Your task to perform on an android device: Empty the shopping cart on ebay. Add "usb-a to usb-b" to the cart on ebay, then select checkout. Image 0: 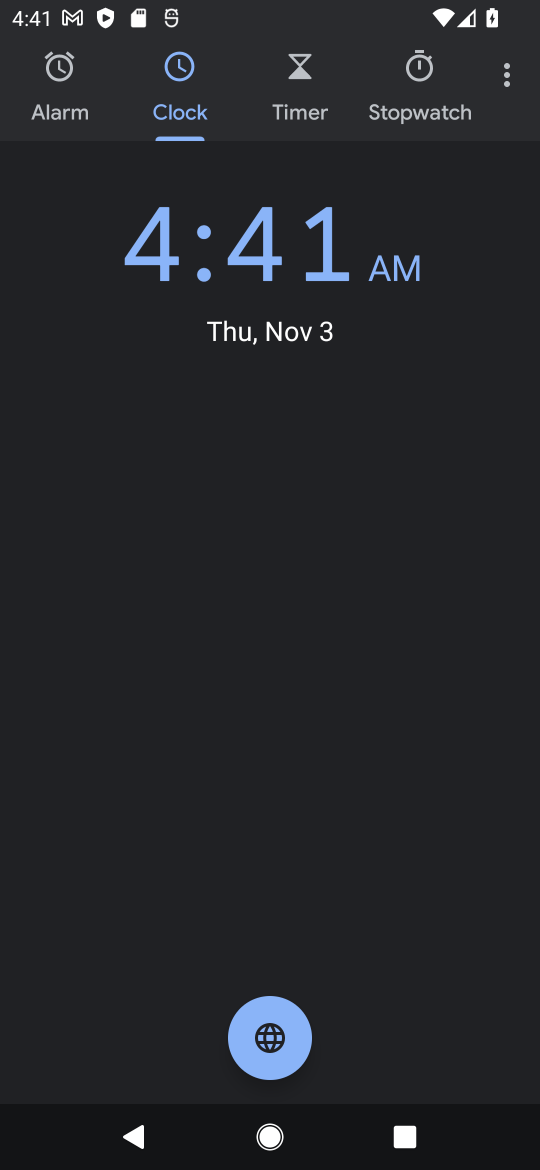
Step 0: press home button
Your task to perform on an android device: Empty the shopping cart on ebay. Add "usb-a to usb-b" to the cart on ebay, then select checkout. Image 1: 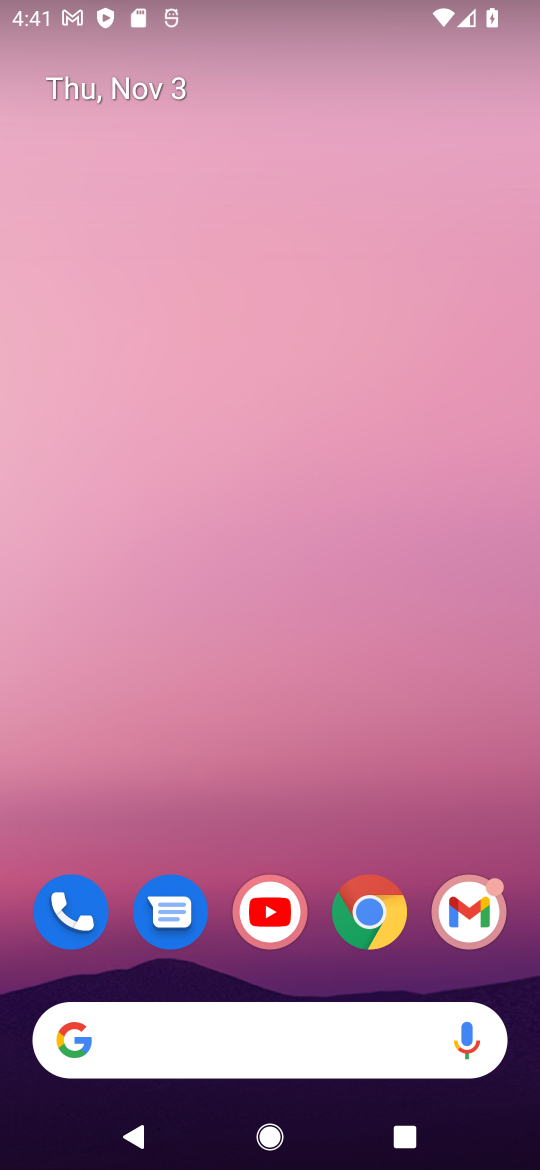
Step 1: click (371, 895)
Your task to perform on an android device: Empty the shopping cart on ebay. Add "usb-a to usb-b" to the cart on ebay, then select checkout. Image 2: 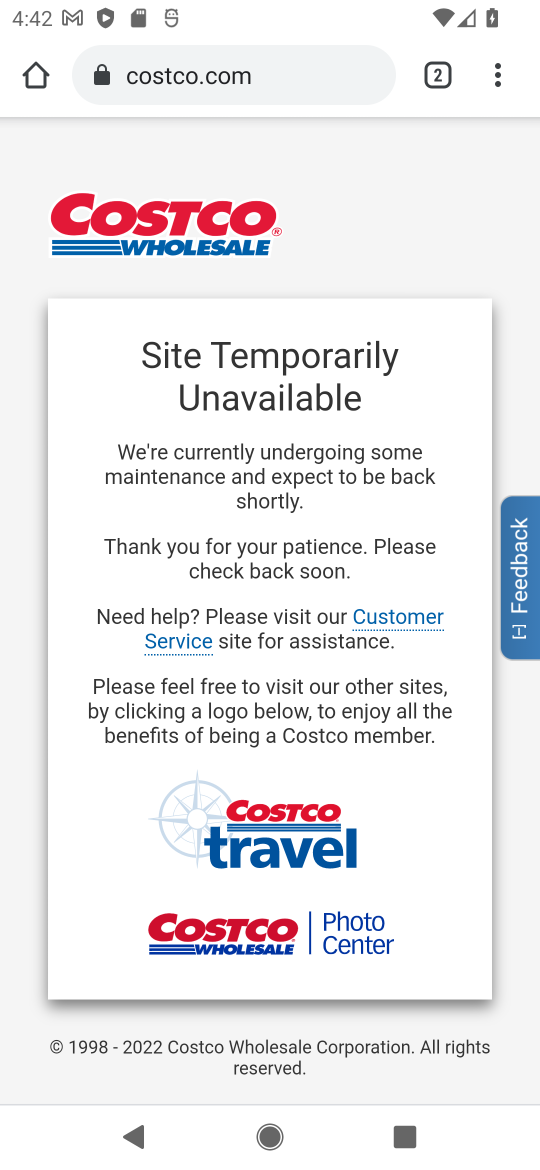
Step 2: click (405, 70)
Your task to perform on an android device: Empty the shopping cart on ebay. Add "usb-a to usb-b" to the cart on ebay, then select checkout. Image 3: 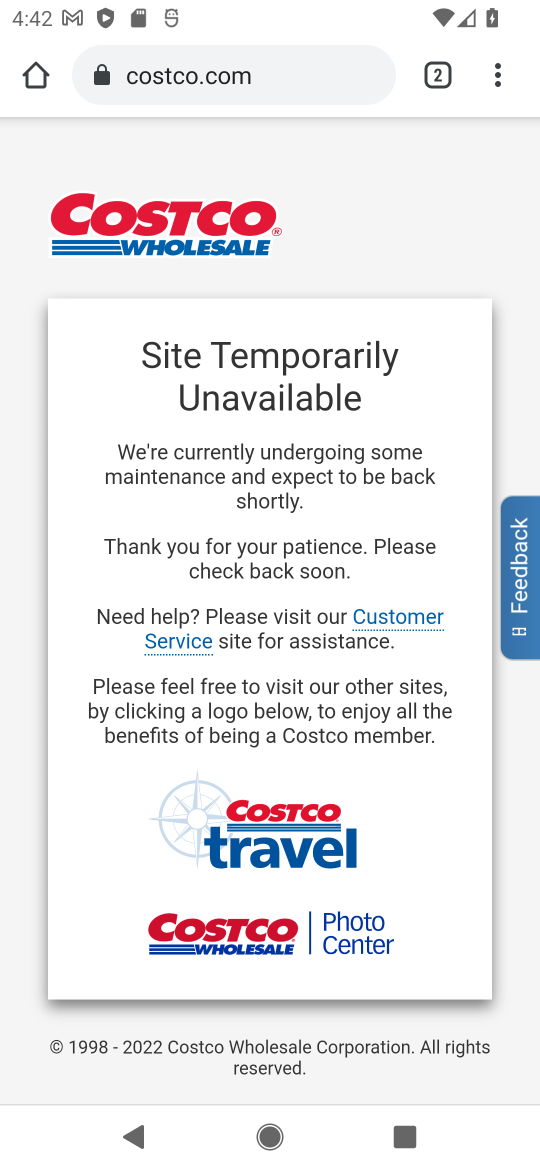
Step 3: click (427, 70)
Your task to perform on an android device: Empty the shopping cart on ebay. Add "usb-a to usb-b" to the cart on ebay, then select checkout. Image 4: 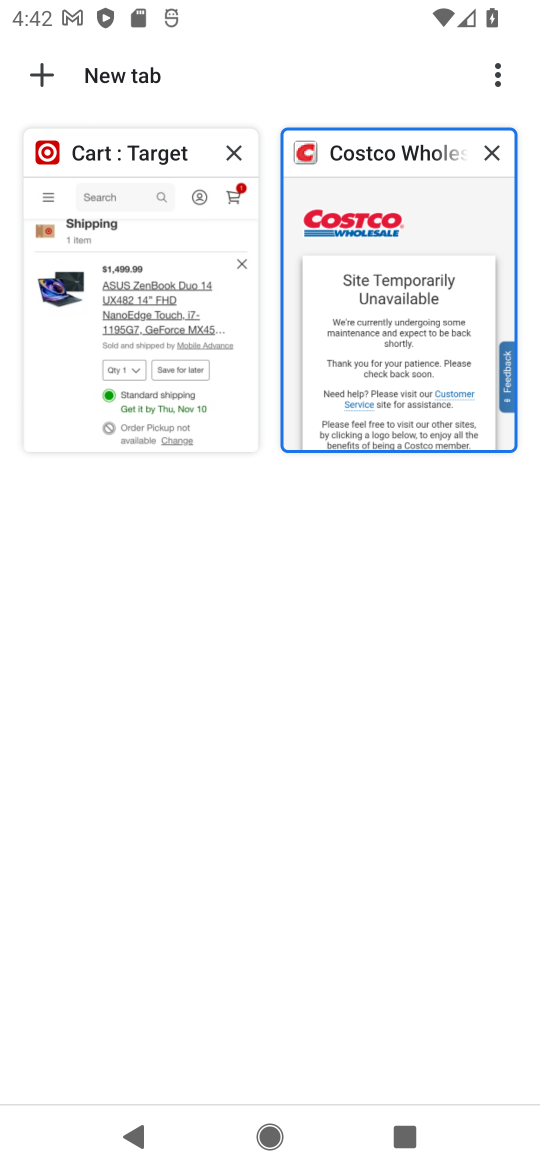
Step 4: click (89, 74)
Your task to perform on an android device: Empty the shopping cart on ebay. Add "usb-a to usb-b" to the cart on ebay, then select checkout. Image 5: 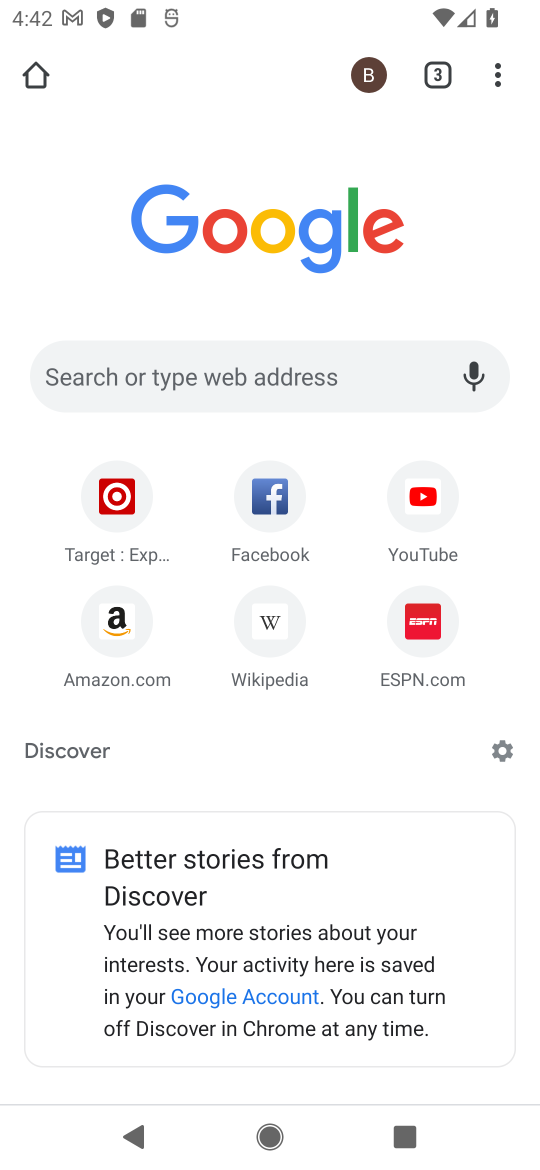
Step 5: click (198, 379)
Your task to perform on an android device: Empty the shopping cart on ebay. Add "usb-a to usb-b" to the cart on ebay, then select checkout. Image 6: 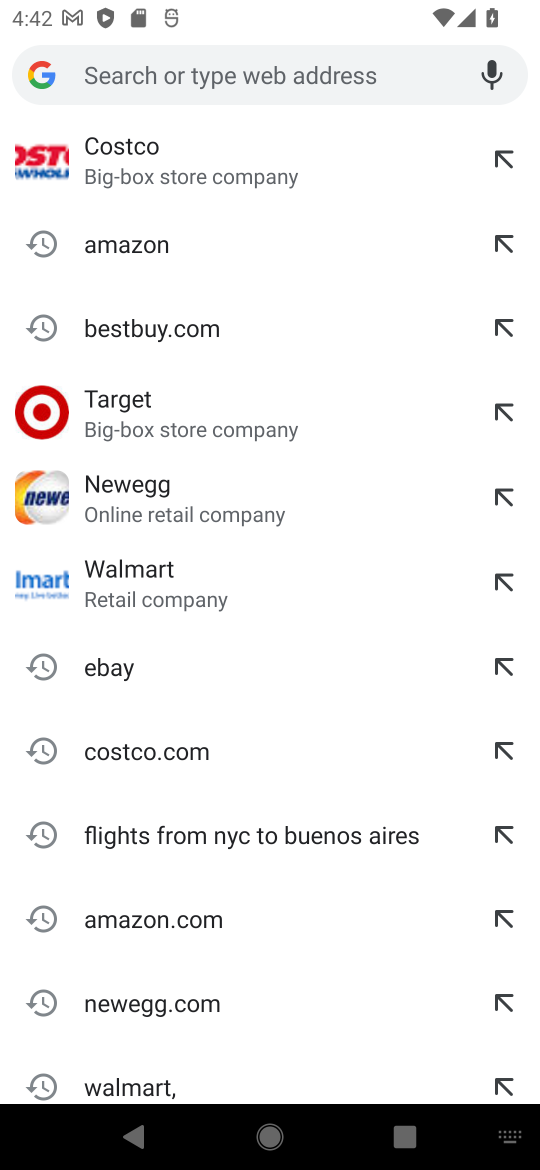
Step 6: click (159, 662)
Your task to perform on an android device: Empty the shopping cart on ebay. Add "usb-a to usb-b" to the cart on ebay, then select checkout. Image 7: 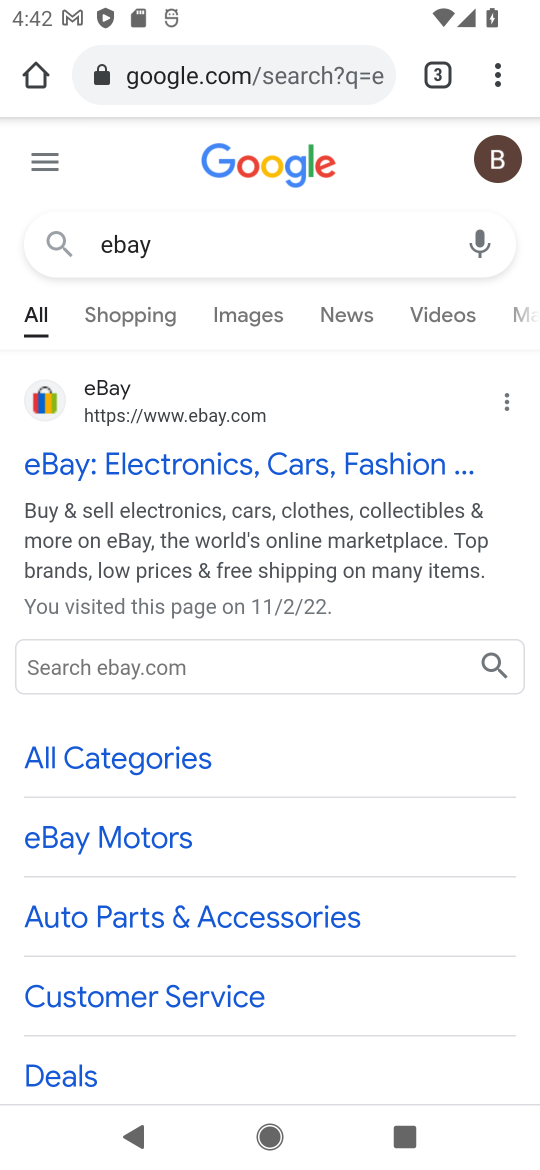
Step 7: click (140, 472)
Your task to perform on an android device: Empty the shopping cart on ebay. Add "usb-a to usb-b" to the cart on ebay, then select checkout. Image 8: 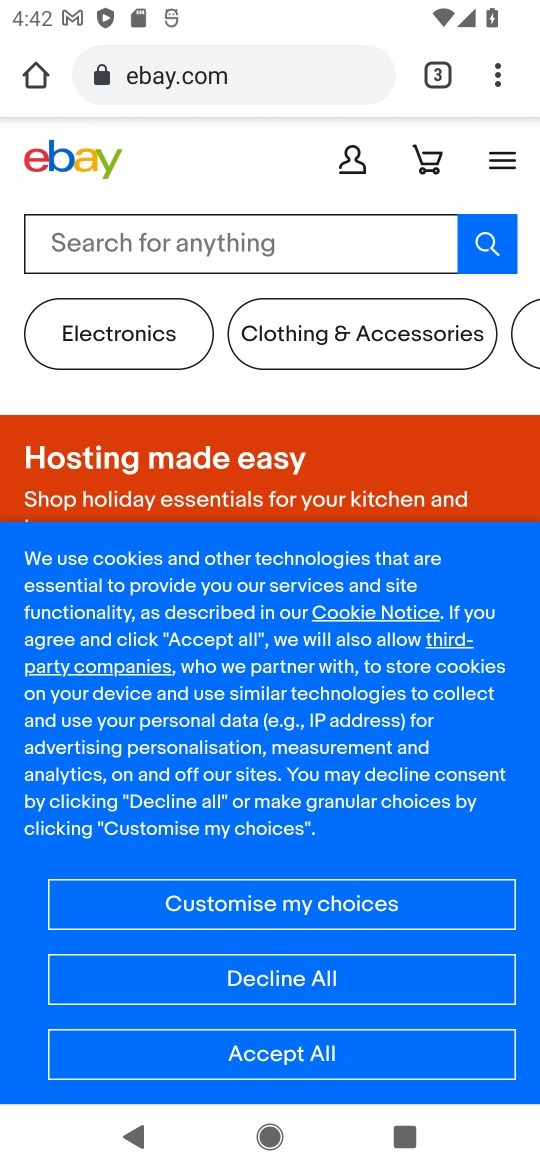
Step 8: click (83, 252)
Your task to perform on an android device: Empty the shopping cart on ebay. Add "usb-a to usb-b" to the cart on ebay, then select checkout. Image 9: 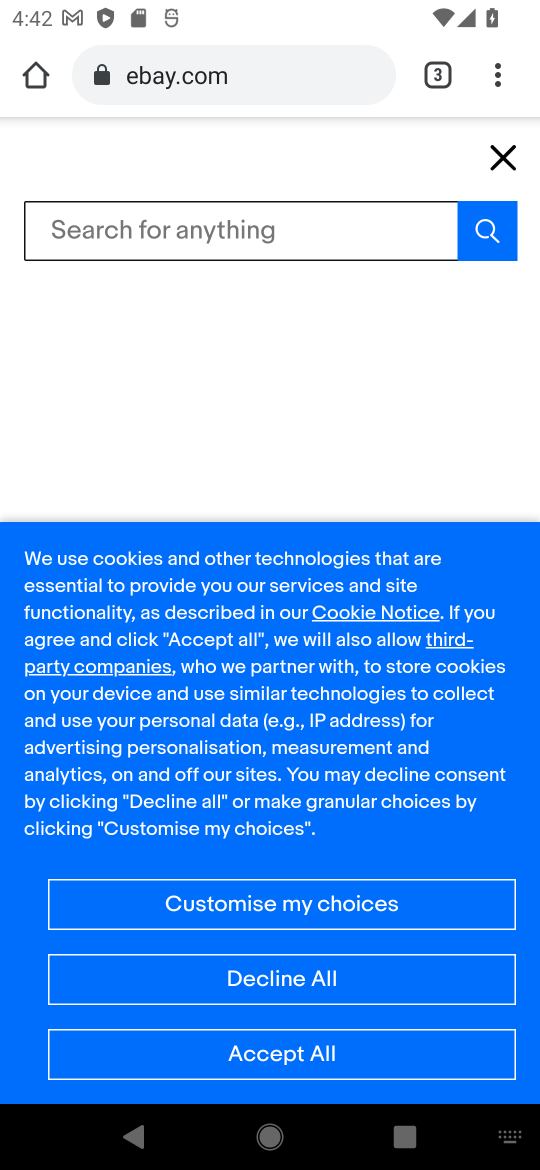
Step 9: type "usb-a to usb-b""
Your task to perform on an android device: Empty the shopping cart on ebay. Add "usb-a to usb-b" to the cart on ebay, then select checkout. Image 10: 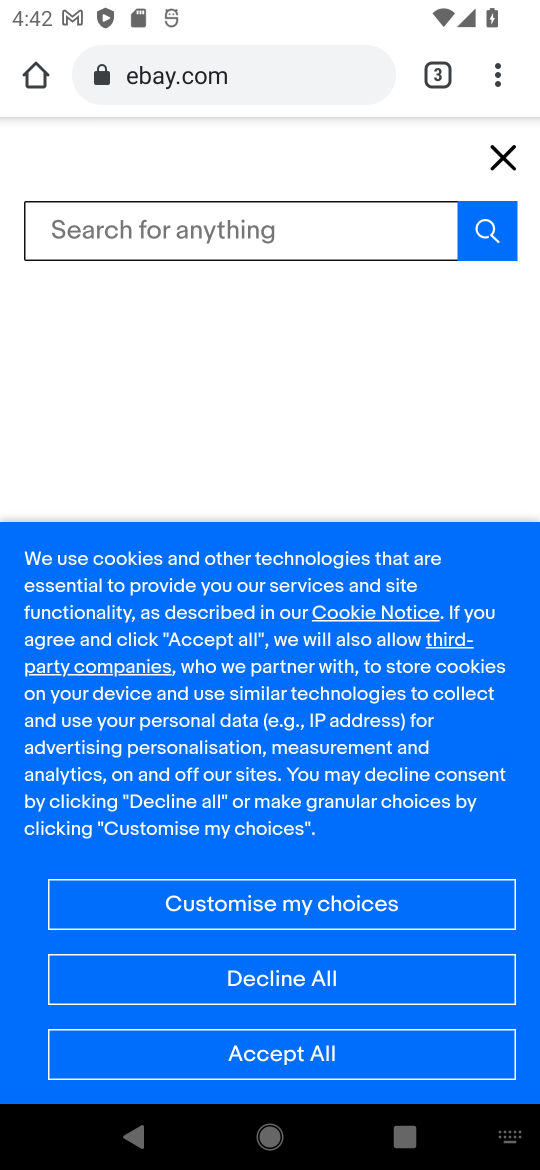
Step 10: click (184, 231)
Your task to perform on an android device: Empty the shopping cart on ebay. Add "usb-a to usb-b" to the cart on ebay, then select checkout. Image 11: 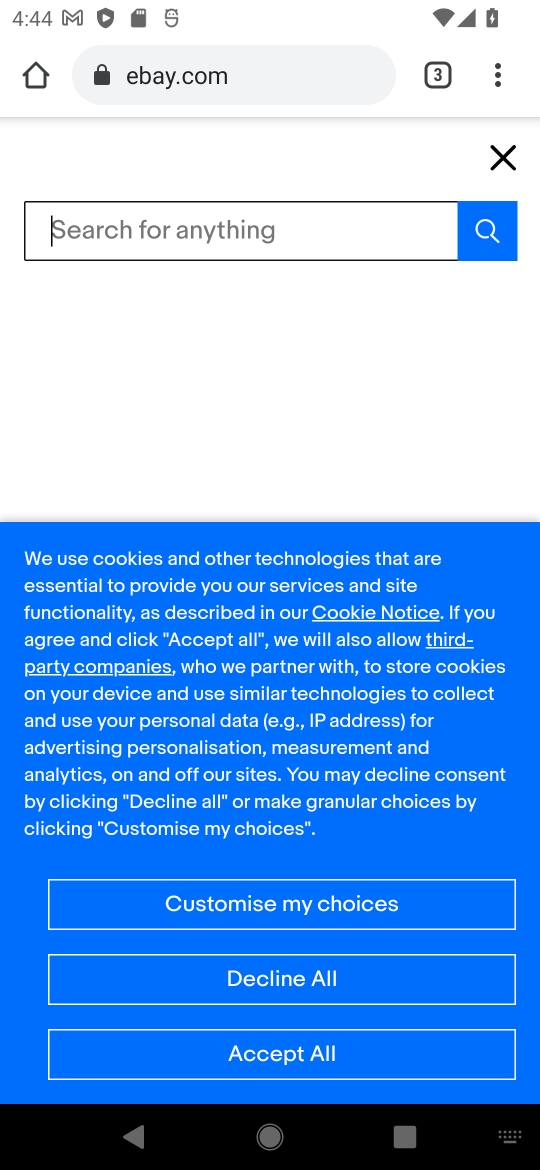
Step 11: click (250, 244)
Your task to perform on an android device: Empty the shopping cart on ebay. Add "usb-a to usb-b" to the cart on ebay, then select checkout. Image 12: 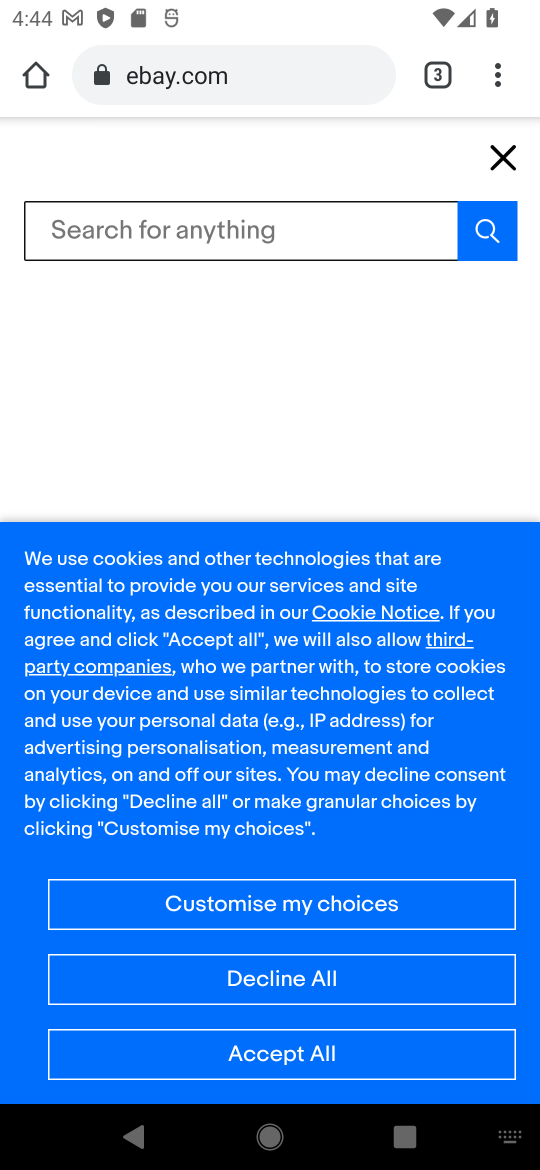
Step 12: click (156, 228)
Your task to perform on an android device: Empty the shopping cart on ebay. Add "usb-a to usb-b" to the cart on ebay, then select checkout. Image 13: 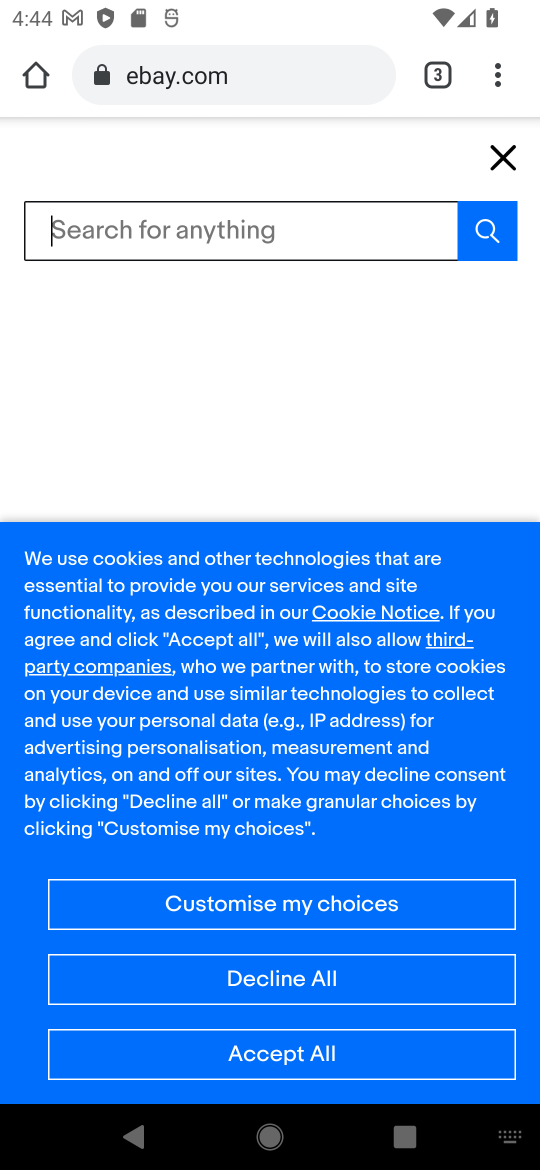
Step 13: type "usb-a to usb-b"
Your task to perform on an android device: Empty the shopping cart on ebay. Add "usb-a to usb-b" to the cart on ebay, then select checkout. Image 14: 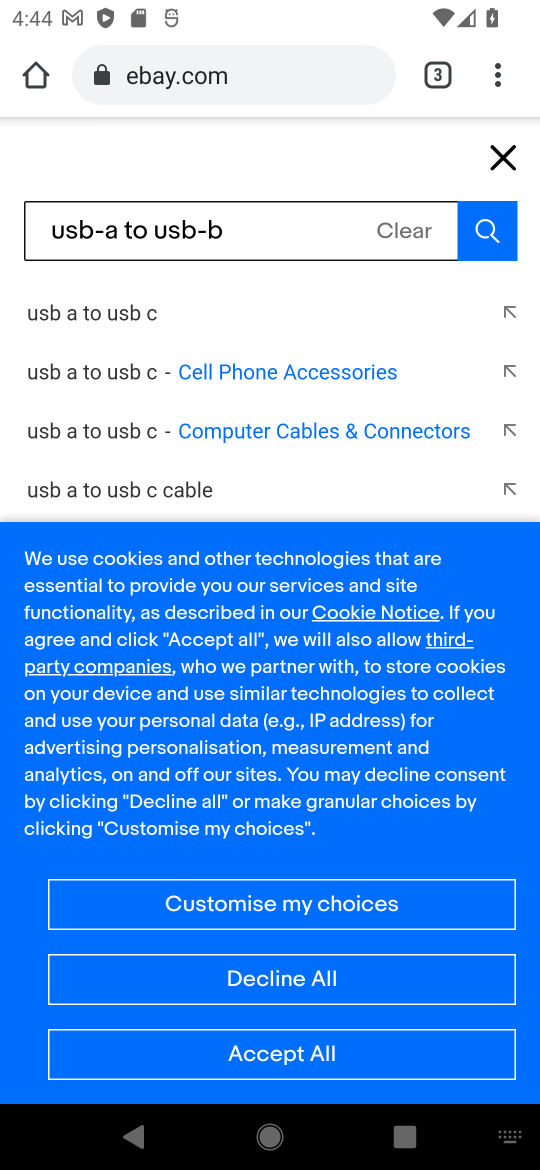
Step 14: click (104, 307)
Your task to perform on an android device: Empty the shopping cart on ebay. Add "usb-a to usb-b" to the cart on ebay, then select checkout. Image 15: 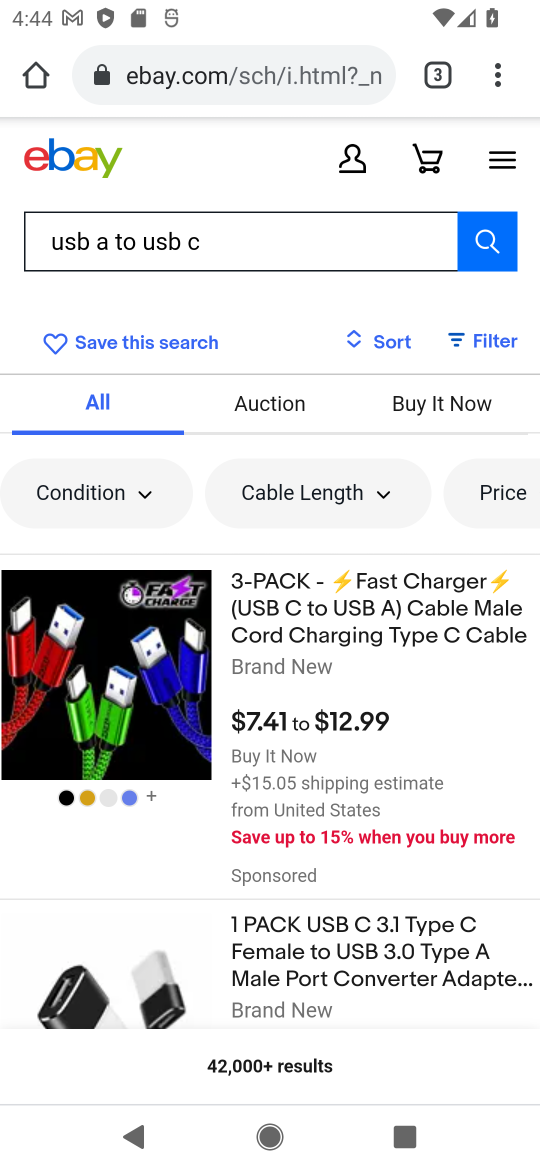
Step 15: task complete